Your task to perform on an android device: change text size in settings app Image 0: 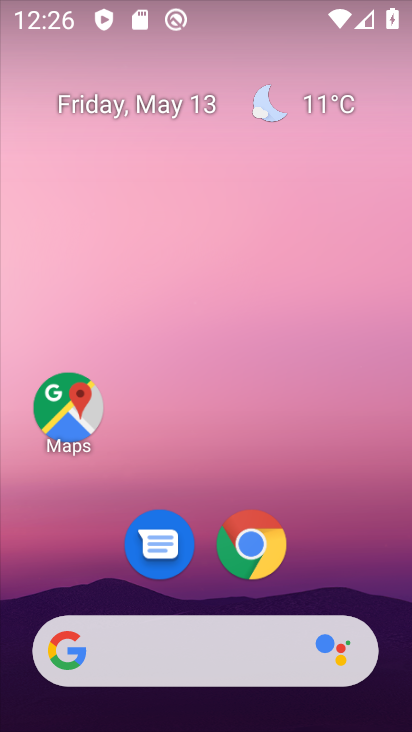
Step 0: drag from (340, 576) to (341, 180)
Your task to perform on an android device: change text size in settings app Image 1: 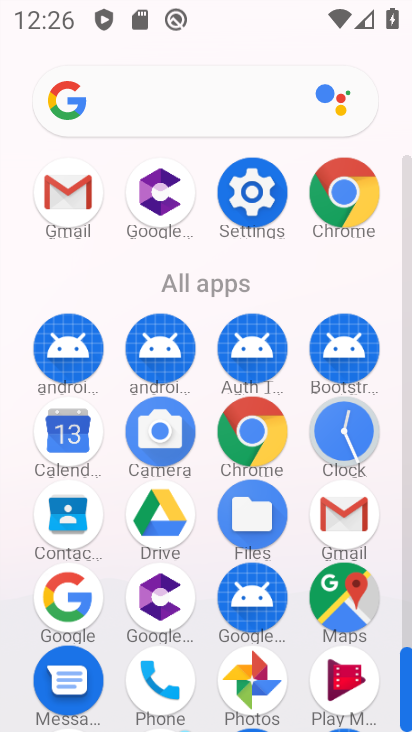
Step 1: click (254, 185)
Your task to perform on an android device: change text size in settings app Image 2: 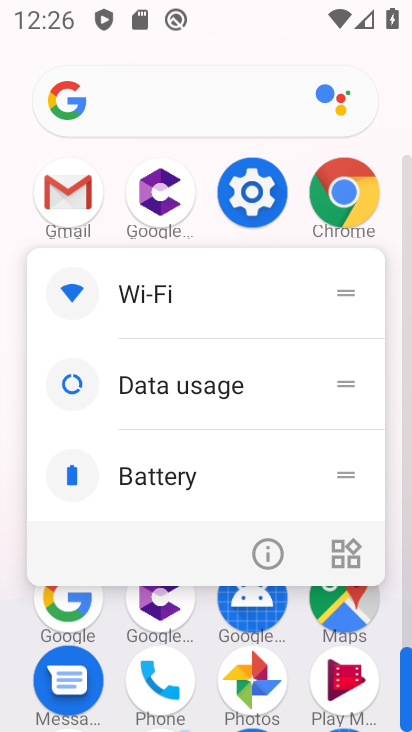
Step 2: click (256, 199)
Your task to perform on an android device: change text size in settings app Image 3: 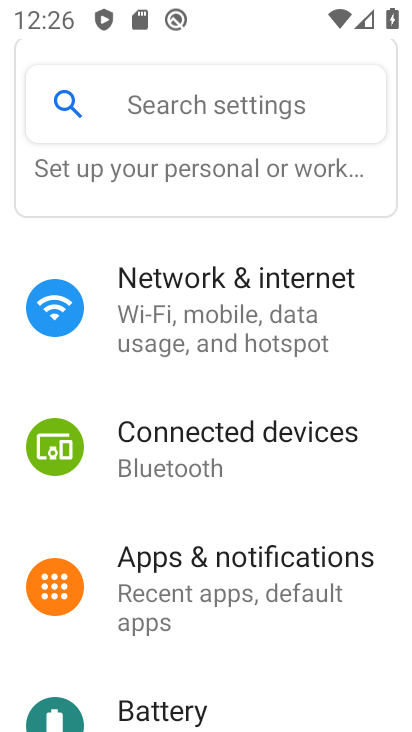
Step 3: drag from (225, 642) to (270, 265)
Your task to perform on an android device: change text size in settings app Image 4: 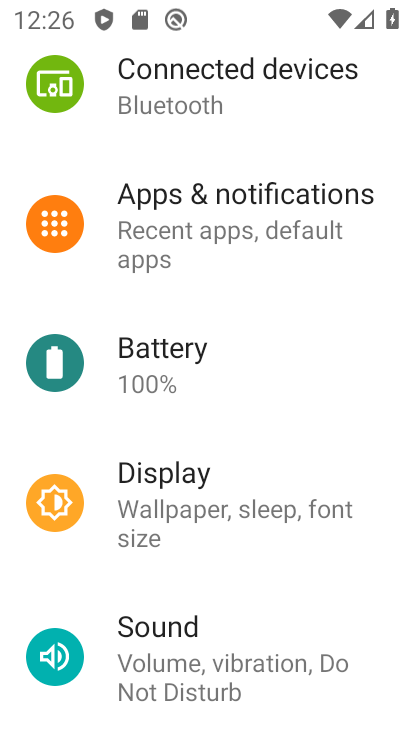
Step 4: drag from (288, 715) to (292, 458)
Your task to perform on an android device: change text size in settings app Image 5: 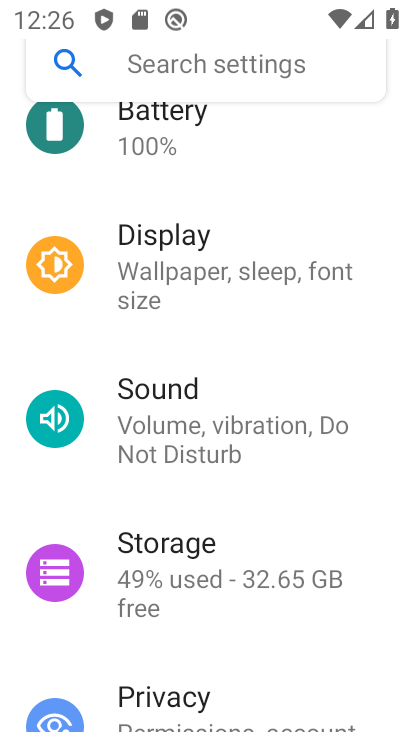
Step 5: click (263, 286)
Your task to perform on an android device: change text size in settings app Image 6: 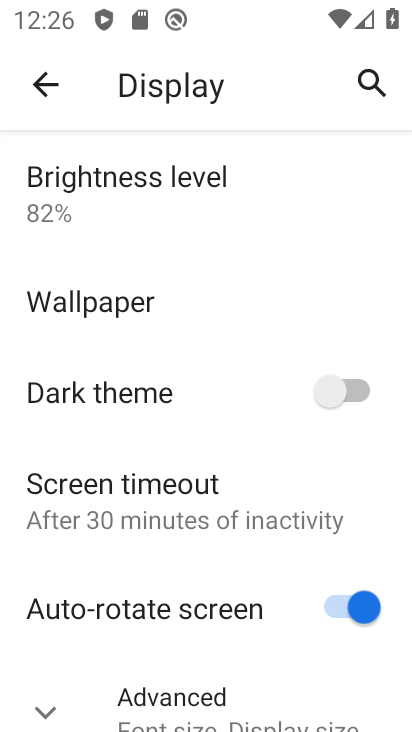
Step 6: drag from (174, 580) to (207, 188)
Your task to perform on an android device: change text size in settings app Image 7: 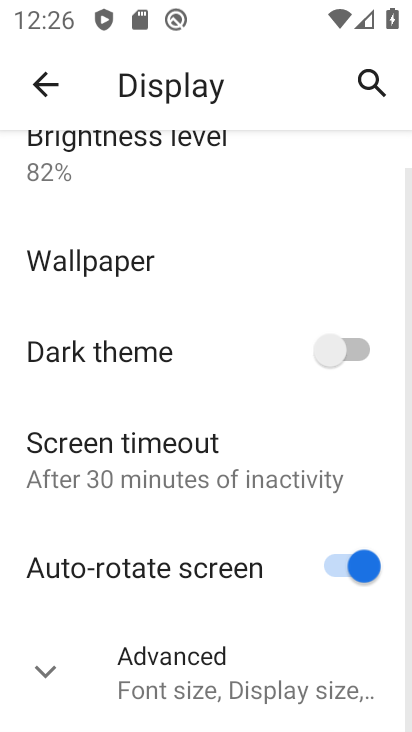
Step 7: click (38, 684)
Your task to perform on an android device: change text size in settings app Image 8: 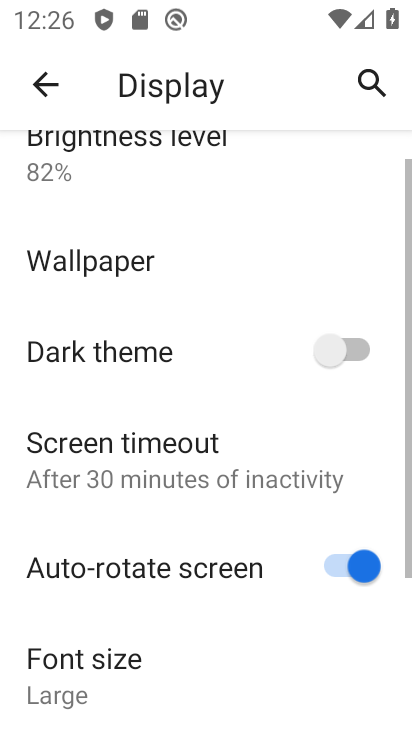
Step 8: drag from (92, 670) to (150, 337)
Your task to perform on an android device: change text size in settings app Image 9: 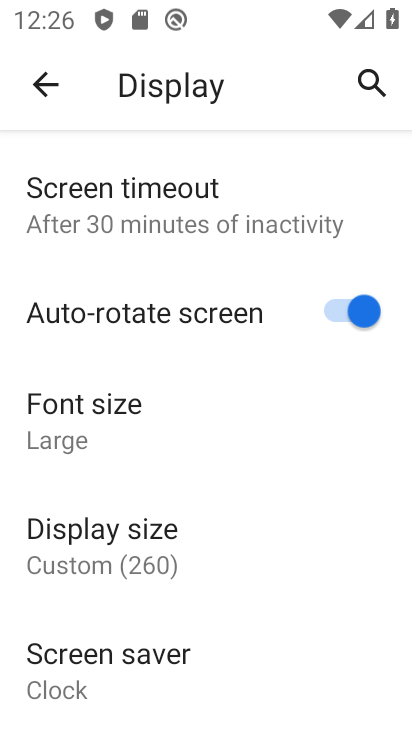
Step 9: click (115, 440)
Your task to perform on an android device: change text size in settings app Image 10: 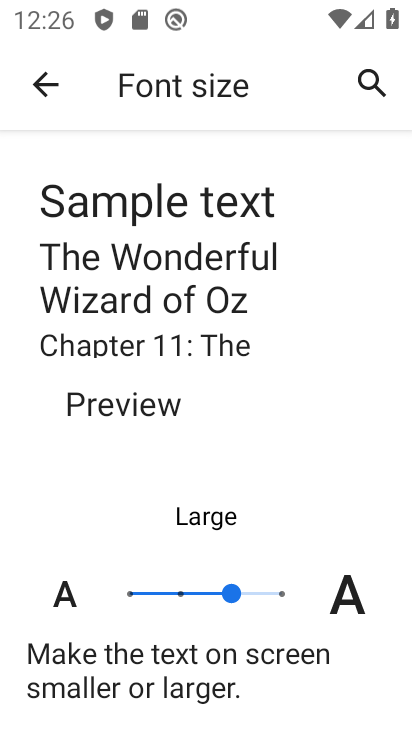
Step 10: click (181, 586)
Your task to perform on an android device: change text size in settings app Image 11: 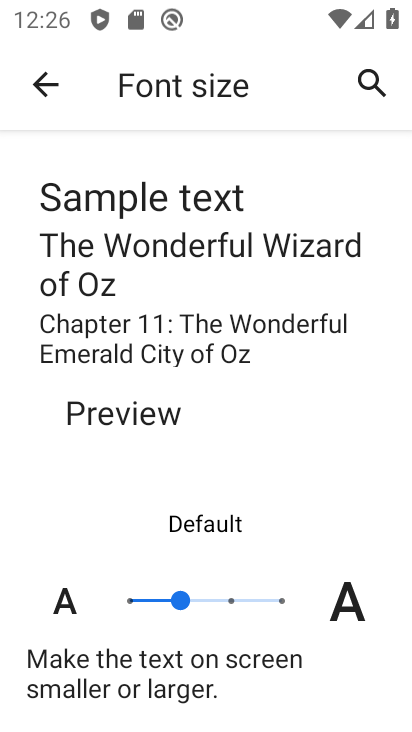
Step 11: task complete